Your task to perform on an android device: change the clock display to show seconds Image 0: 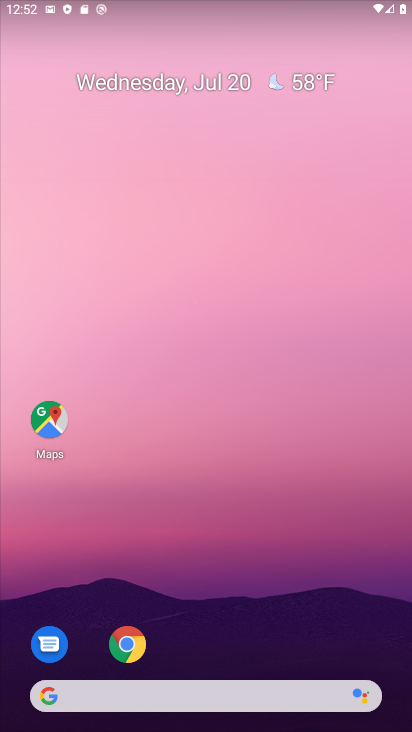
Step 0: drag from (207, 650) to (149, 189)
Your task to perform on an android device: change the clock display to show seconds Image 1: 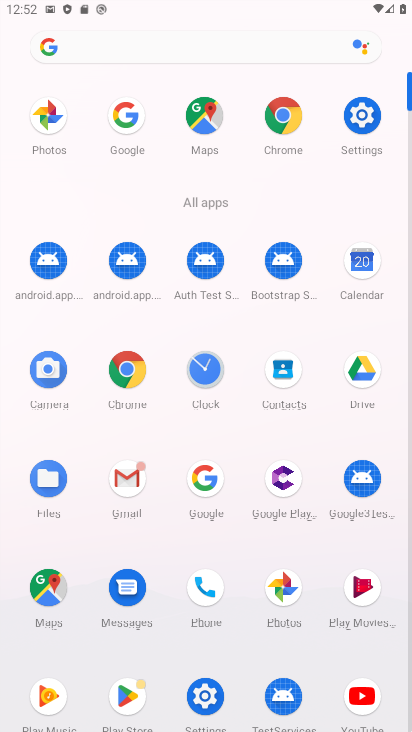
Step 1: click (208, 374)
Your task to perform on an android device: change the clock display to show seconds Image 2: 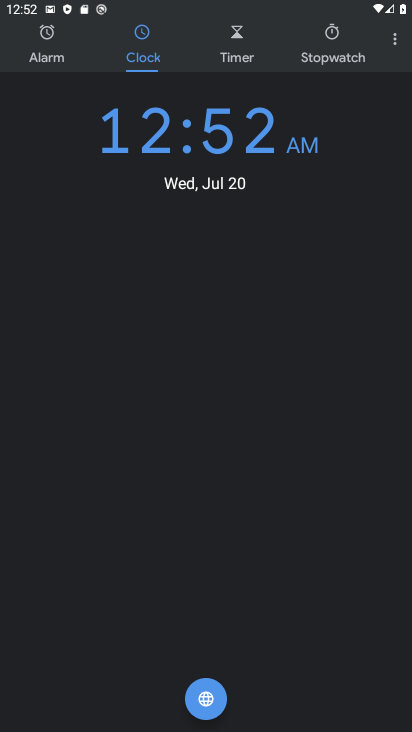
Step 2: click (391, 37)
Your task to perform on an android device: change the clock display to show seconds Image 3: 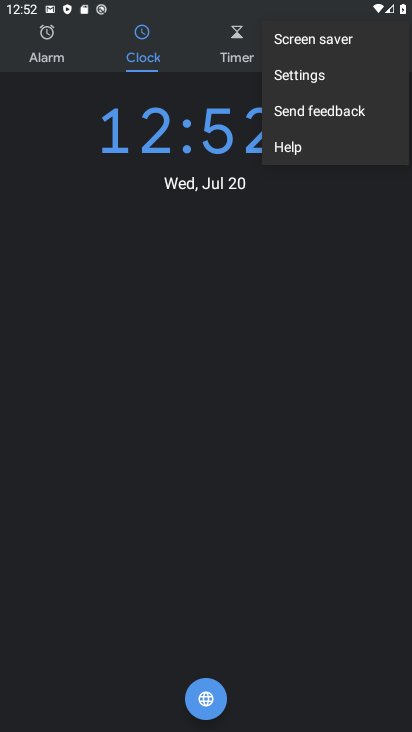
Step 3: click (319, 81)
Your task to perform on an android device: change the clock display to show seconds Image 4: 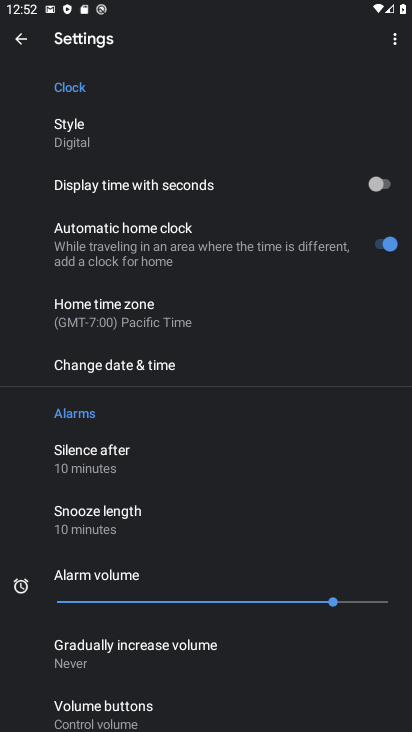
Step 4: click (383, 182)
Your task to perform on an android device: change the clock display to show seconds Image 5: 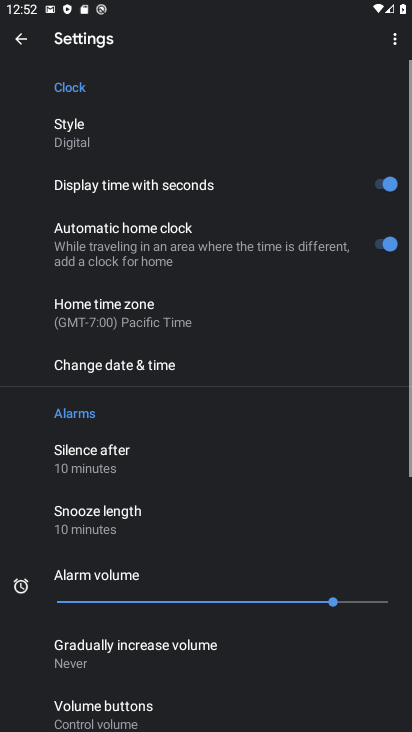
Step 5: task complete